Your task to perform on an android device: open sync settings in chrome Image 0: 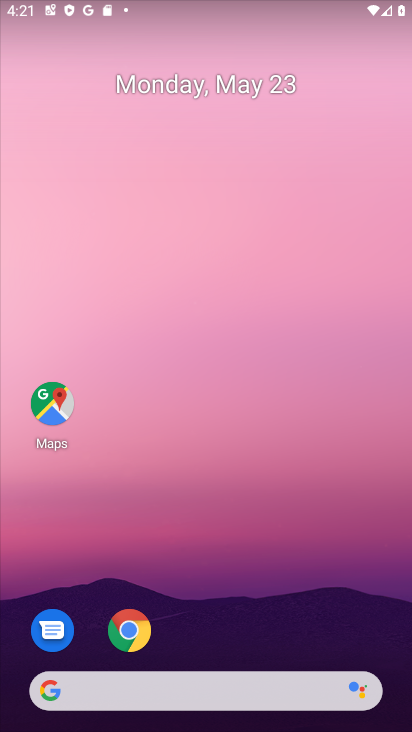
Step 0: click (128, 627)
Your task to perform on an android device: open sync settings in chrome Image 1: 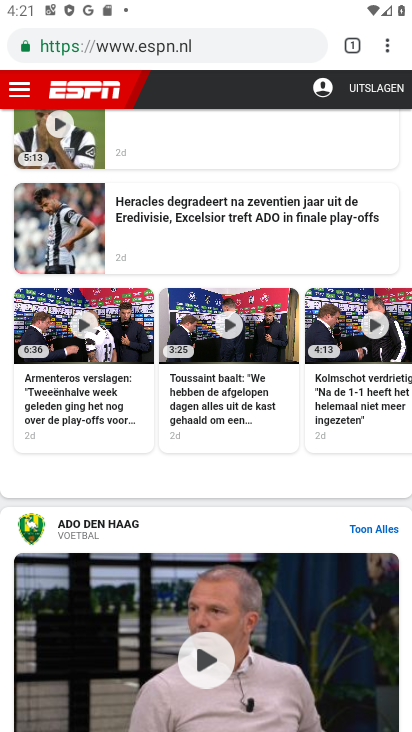
Step 1: click (390, 45)
Your task to perform on an android device: open sync settings in chrome Image 2: 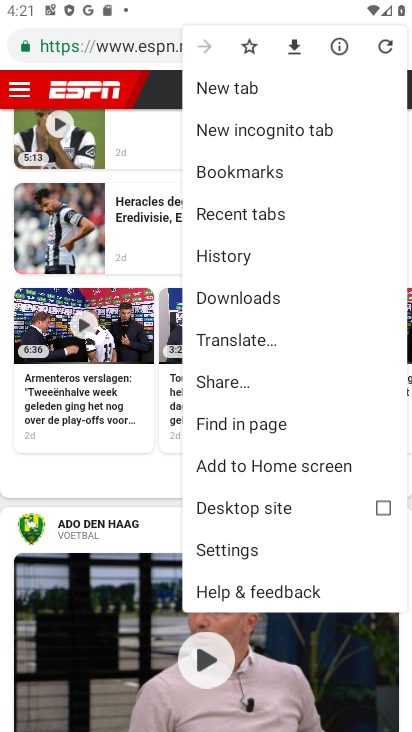
Step 2: click (258, 547)
Your task to perform on an android device: open sync settings in chrome Image 3: 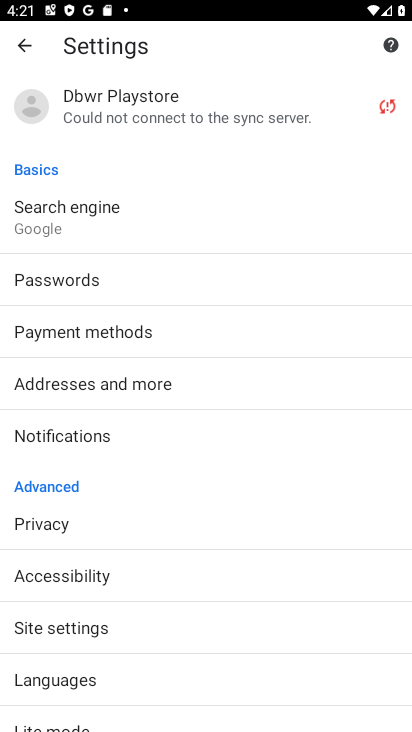
Step 3: click (163, 111)
Your task to perform on an android device: open sync settings in chrome Image 4: 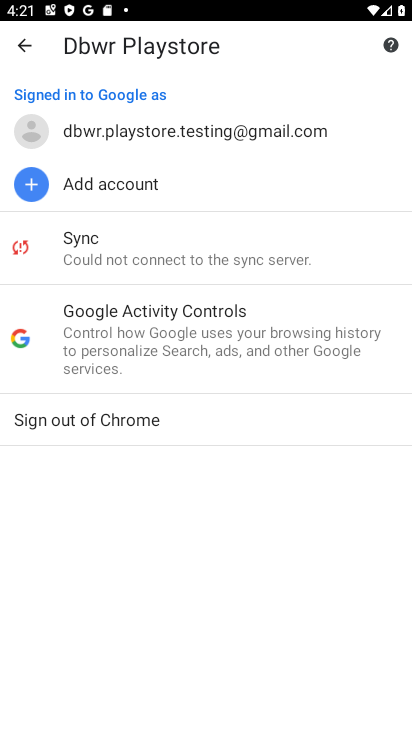
Step 4: click (123, 241)
Your task to perform on an android device: open sync settings in chrome Image 5: 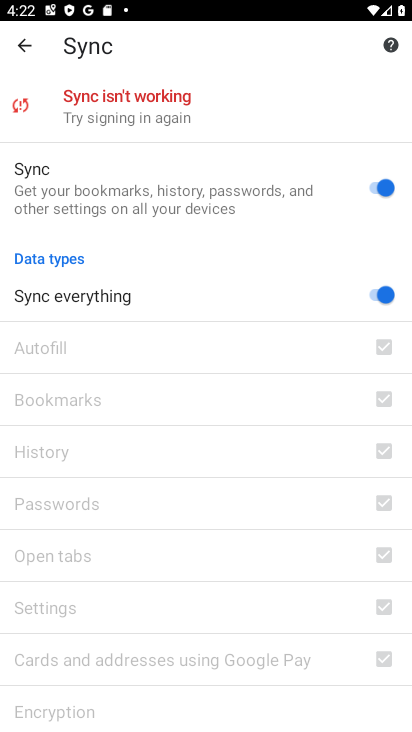
Step 5: task complete